Your task to perform on an android device: choose inbox layout in the gmail app Image 0: 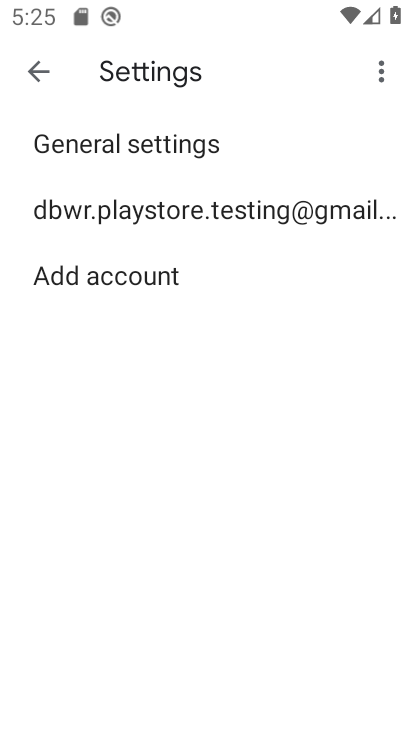
Step 0: press back button
Your task to perform on an android device: choose inbox layout in the gmail app Image 1: 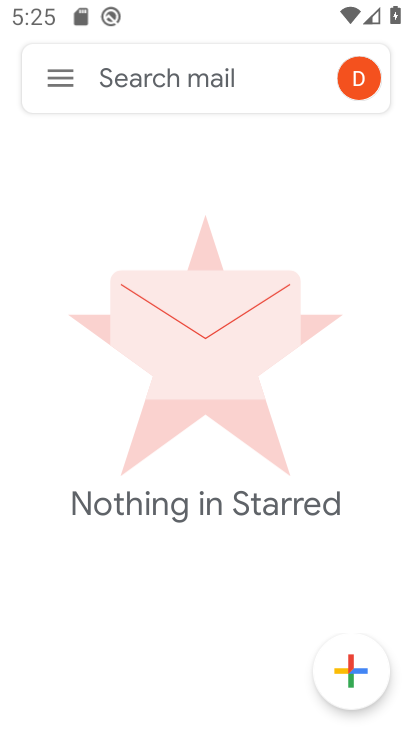
Step 1: press back button
Your task to perform on an android device: choose inbox layout in the gmail app Image 2: 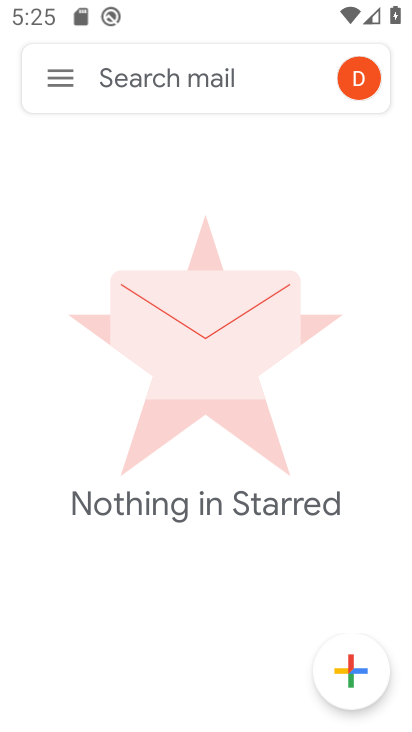
Step 2: press back button
Your task to perform on an android device: choose inbox layout in the gmail app Image 3: 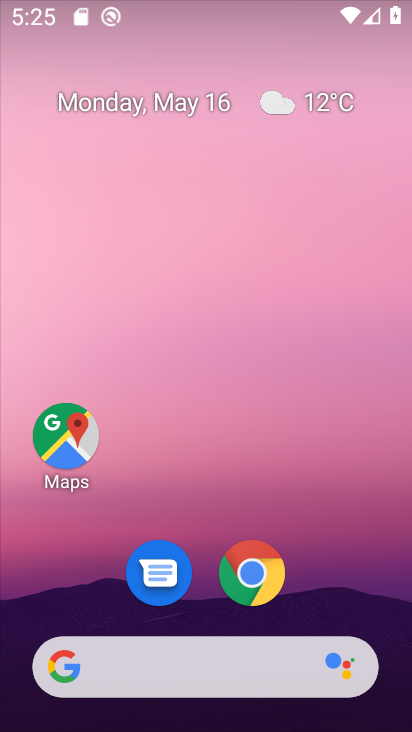
Step 3: drag from (179, 507) to (232, 9)
Your task to perform on an android device: choose inbox layout in the gmail app Image 4: 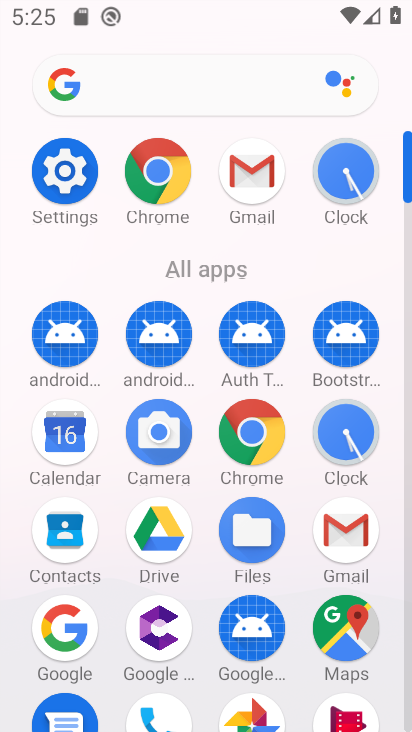
Step 4: click (268, 167)
Your task to perform on an android device: choose inbox layout in the gmail app Image 5: 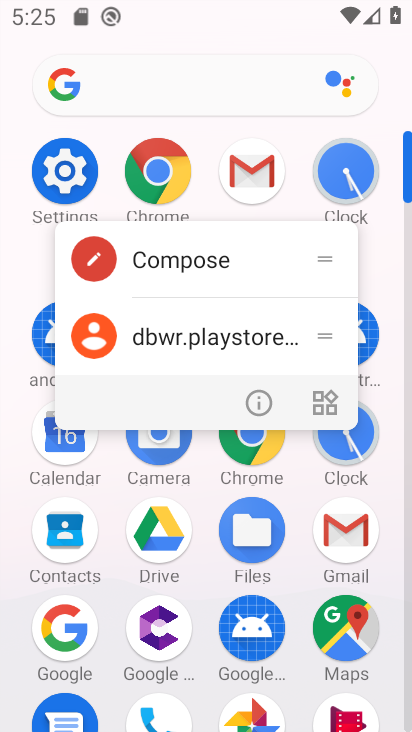
Step 5: click (237, 177)
Your task to perform on an android device: choose inbox layout in the gmail app Image 6: 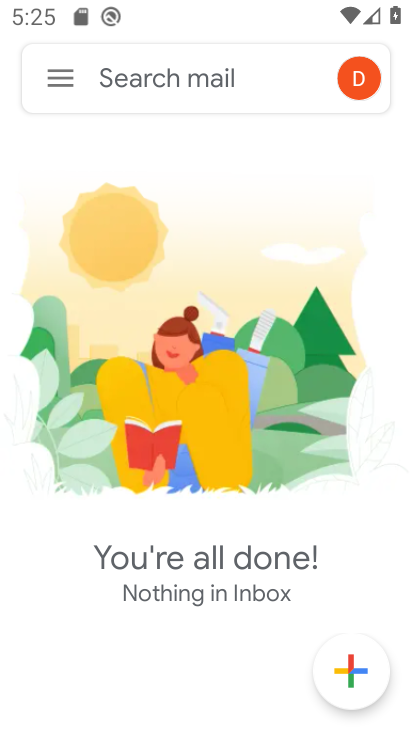
Step 6: click (52, 74)
Your task to perform on an android device: choose inbox layout in the gmail app Image 7: 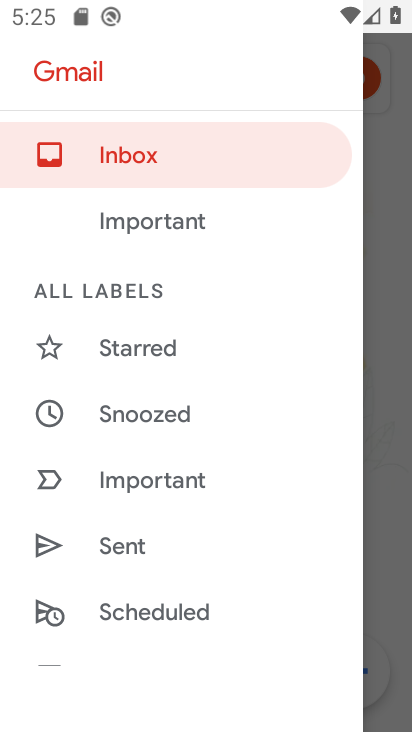
Step 7: drag from (135, 583) to (291, 12)
Your task to perform on an android device: choose inbox layout in the gmail app Image 8: 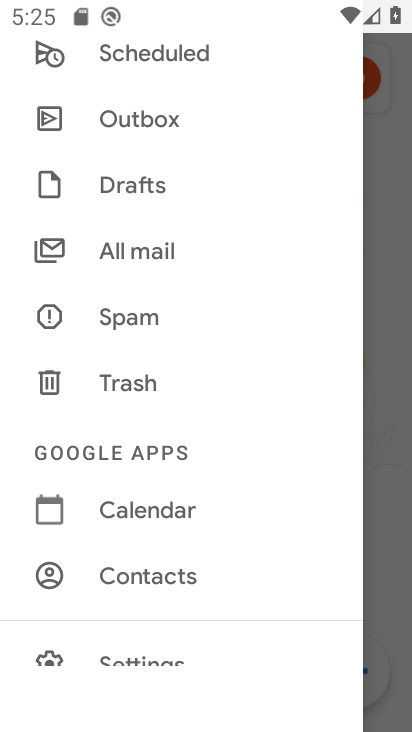
Step 8: drag from (124, 574) to (210, 258)
Your task to perform on an android device: choose inbox layout in the gmail app Image 9: 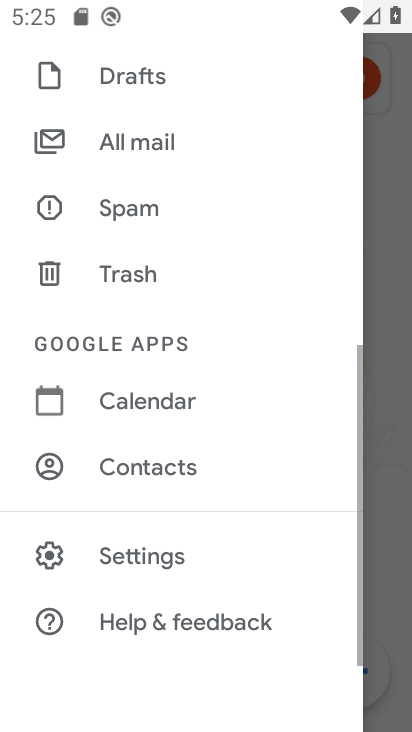
Step 9: click (132, 540)
Your task to perform on an android device: choose inbox layout in the gmail app Image 10: 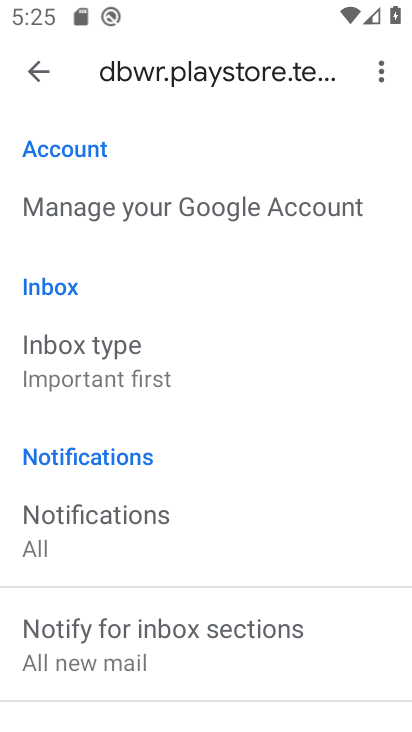
Step 10: click (96, 368)
Your task to perform on an android device: choose inbox layout in the gmail app Image 11: 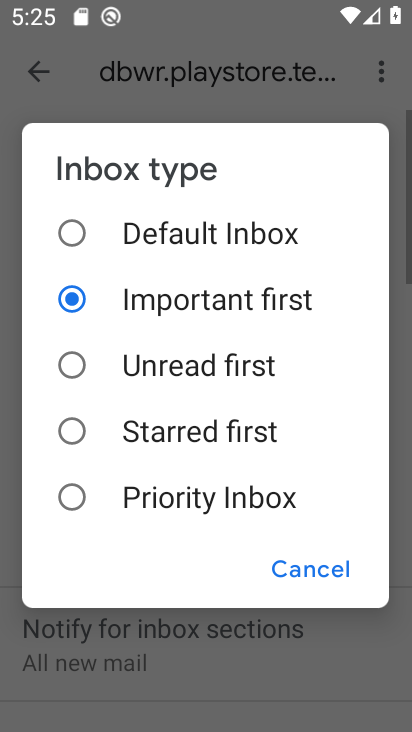
Step 11: click (78, 217)
Your task to perform on an android device: choose inbox layout in the gmail app Image 12: 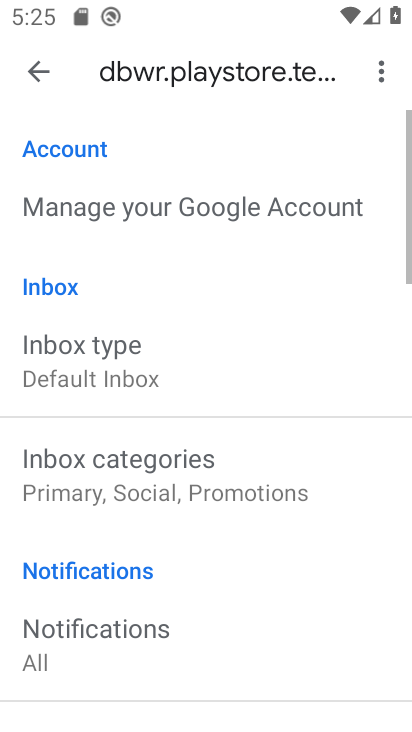
Step 12: task complete